Your task to perform on an android device: What's on my calendar tomorrow? Image 0: 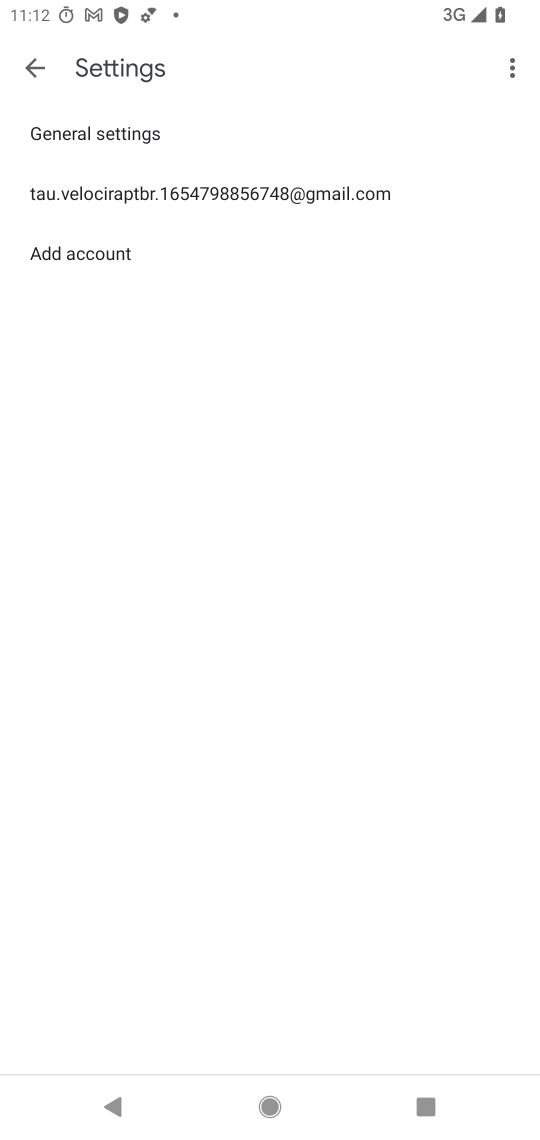
Step 0: press home button
Your task to perform on an android device: What's on my calendar tomorrow? Image 1: 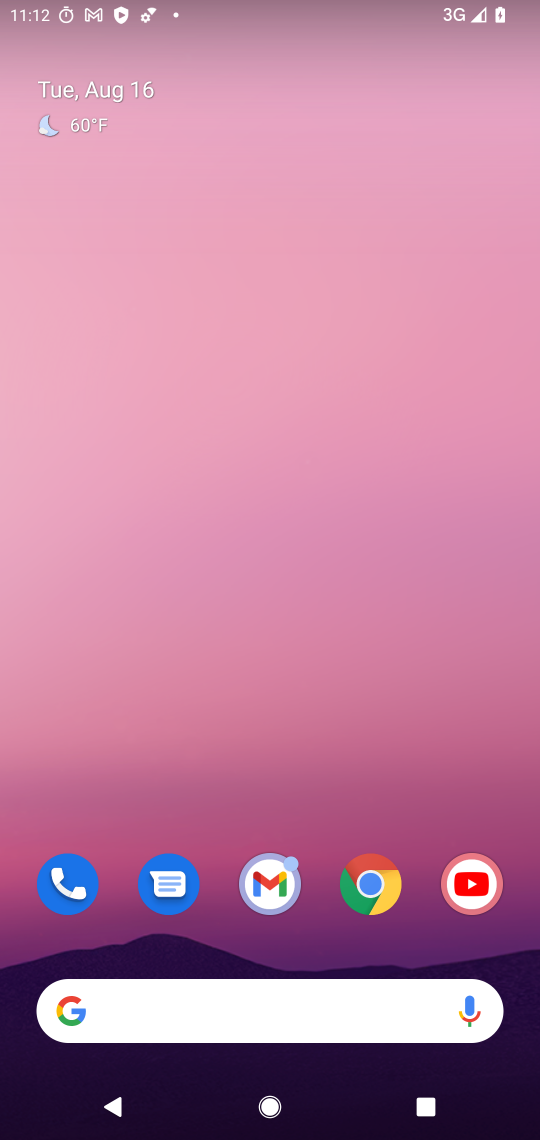
Step 1: drag from (272, 694) to (278, 352)
Your task to perform on an android device: What's on my calendar tomorrow? Image 2: 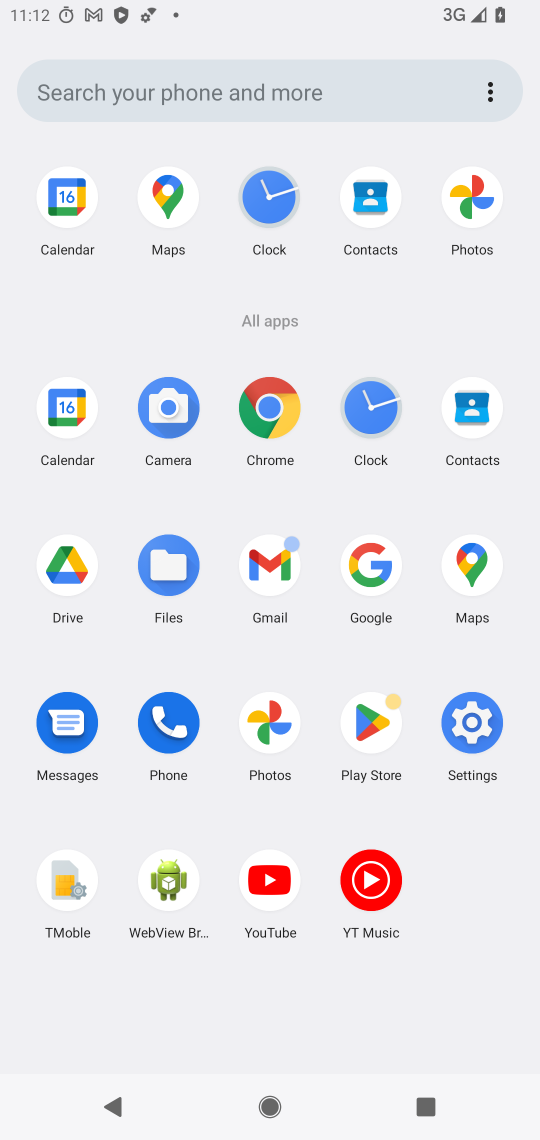
Step 2: click (67, 412)
Your task to perform on an android device: What's on my calendar tomorrow? Image 3: 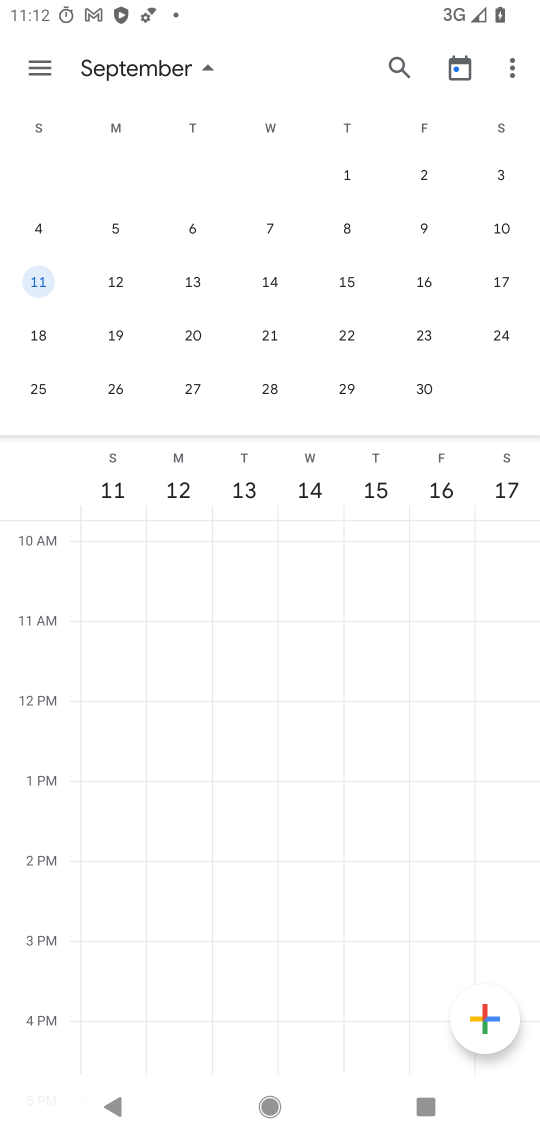
Step 3: drag from (427, 287) to (534, 278)
Your task to perform on an android device: What's on my calendar tomorrow? Image 4: 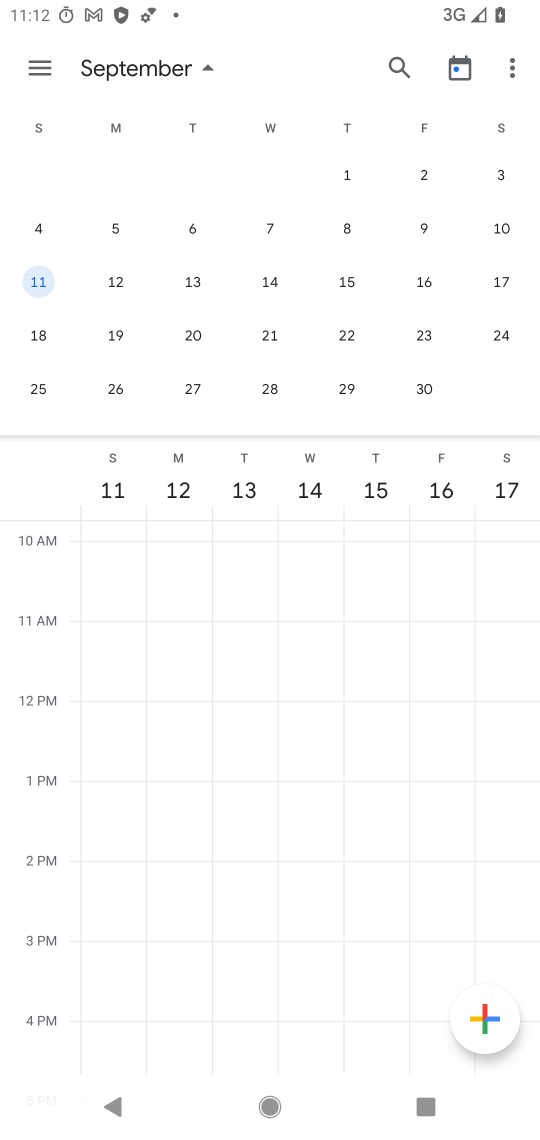
Step 4: drag from (278, 270) to (517, 257)
Your task to perform on an android device: What's on my calendar tomorrow? Image 5: 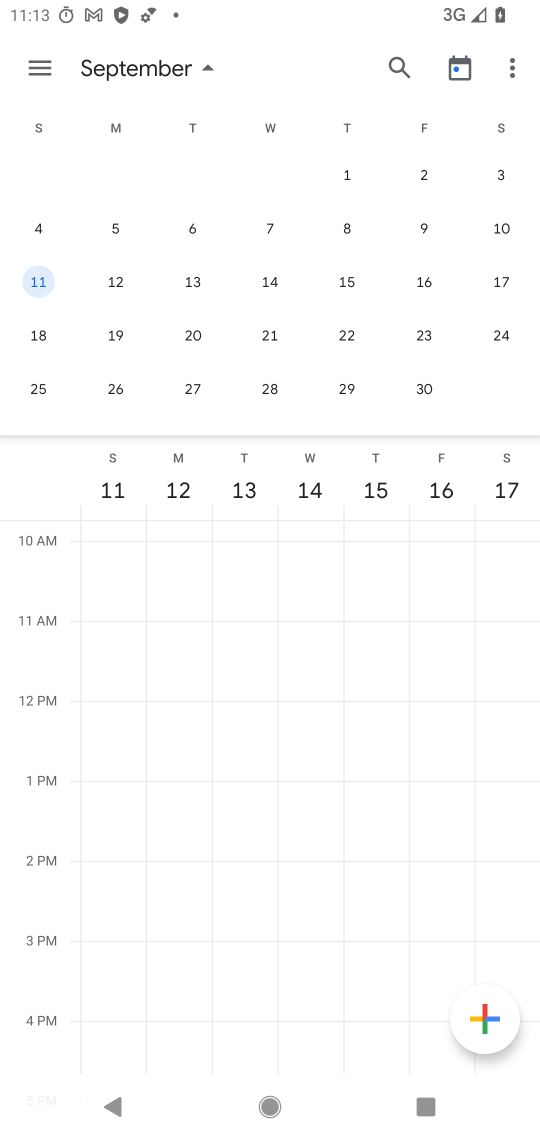
Step 5: drag from (31, 307) to (514, 303)
Your task to perform on an android device: What's on my calendar tomorrow? Image 6: 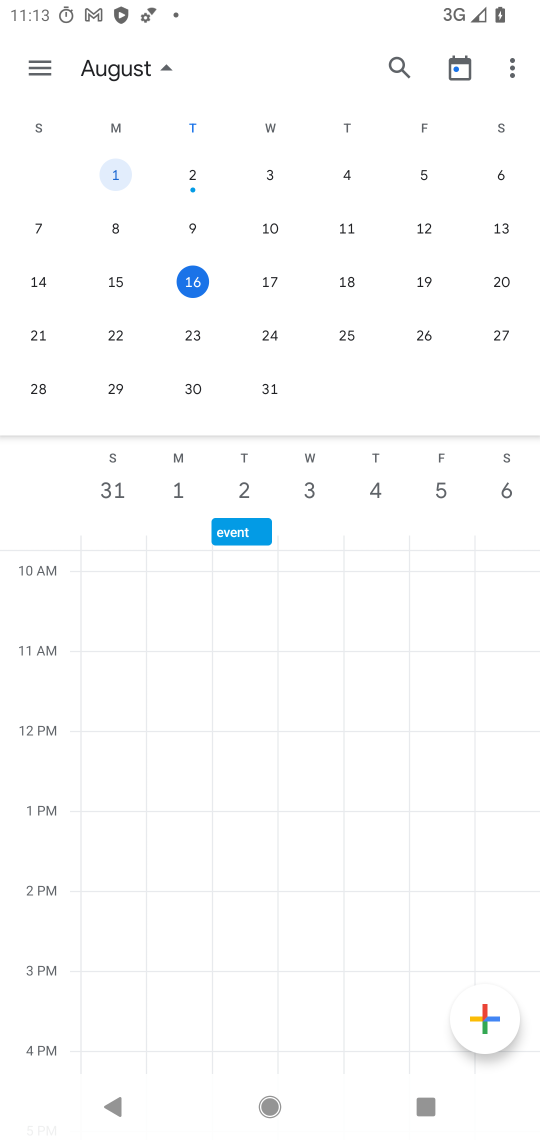
Step 6: click (270, 285)
Your task to perform on an android device: What's on my calendar tomorrow? Image 7: 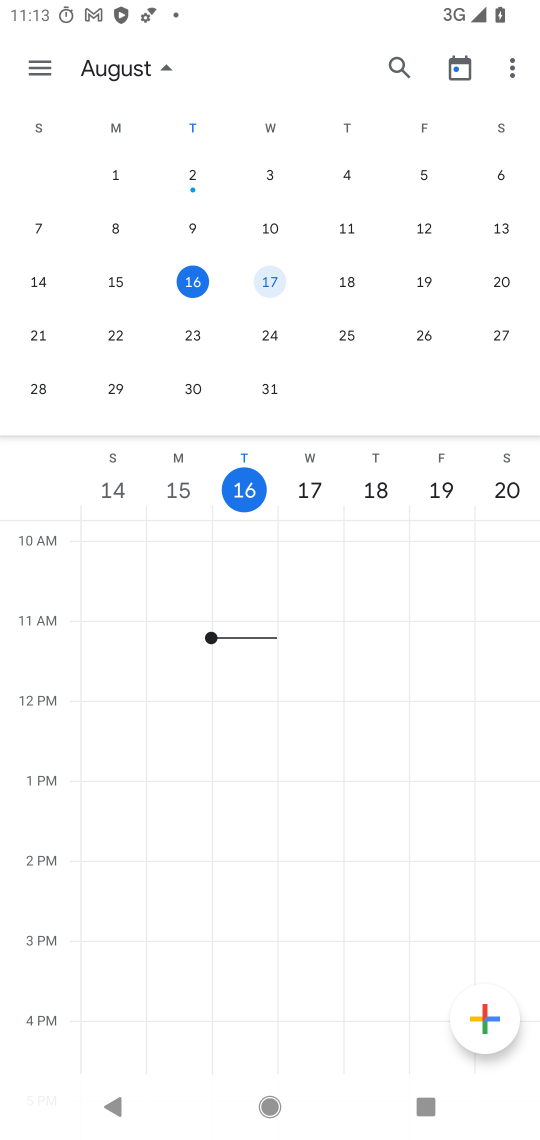
Step 7: click (270, 285)
Your task to perform on an android device: What's on my calendar tomorrow? Image 8: 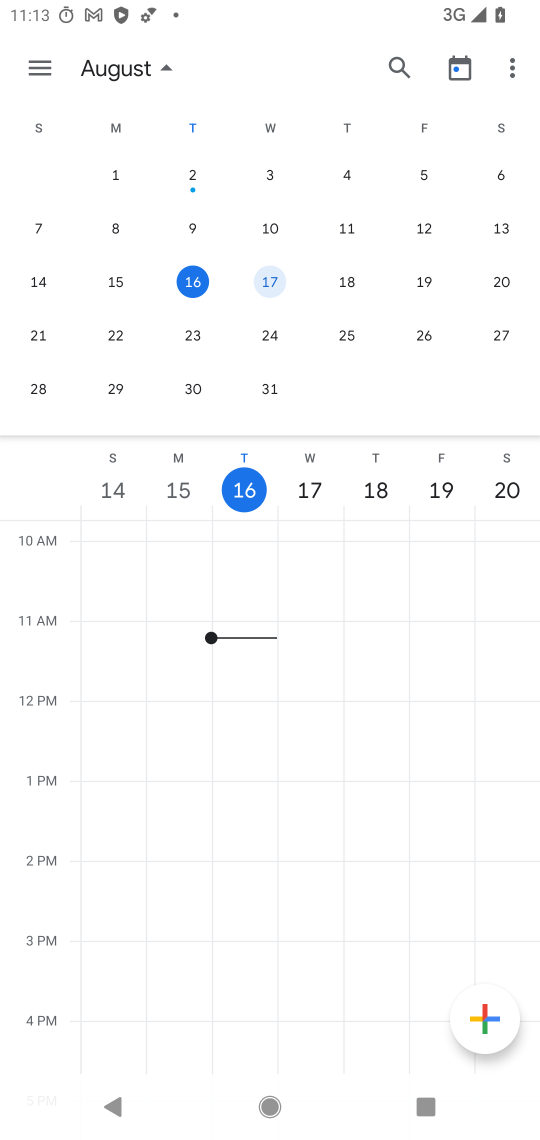
Step 8: click (270, 285)
Your task to perform on an android device: What's on my calendar tomorrow? Image 9: 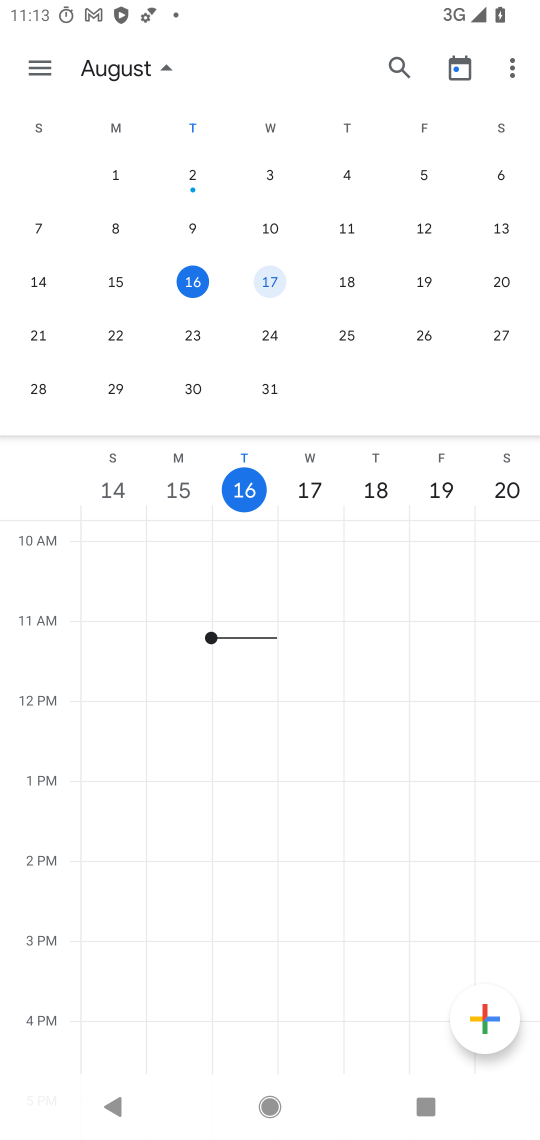
Step 9: click (270, 285)
Your task to perform on an android device: What's on my calendar tomorrow? Image 10: 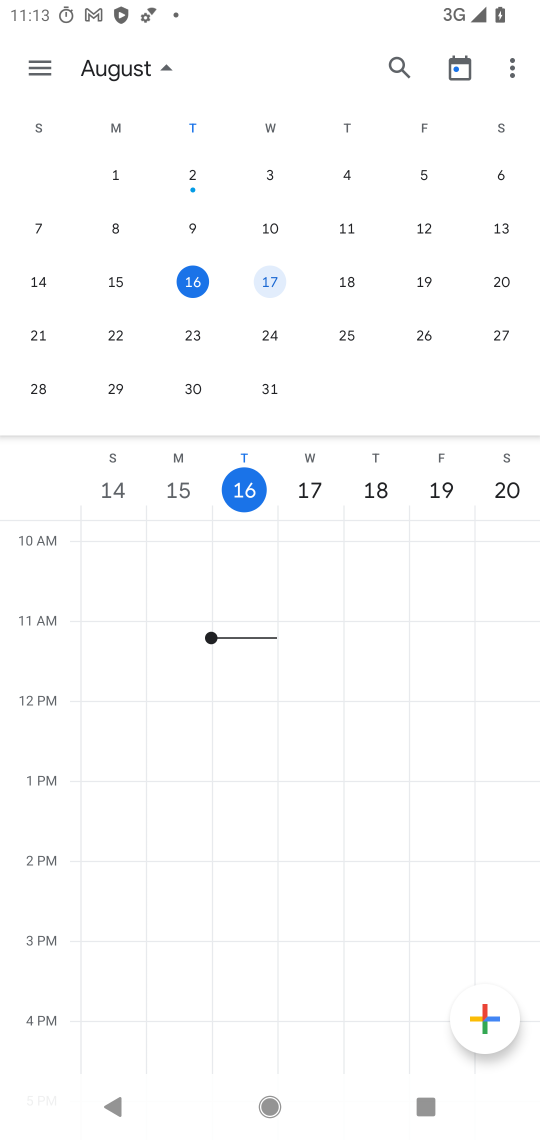
Step 10: click (266, 283)
Your task to perform on an android device: What's on my calendar tomorrow? Image 11: 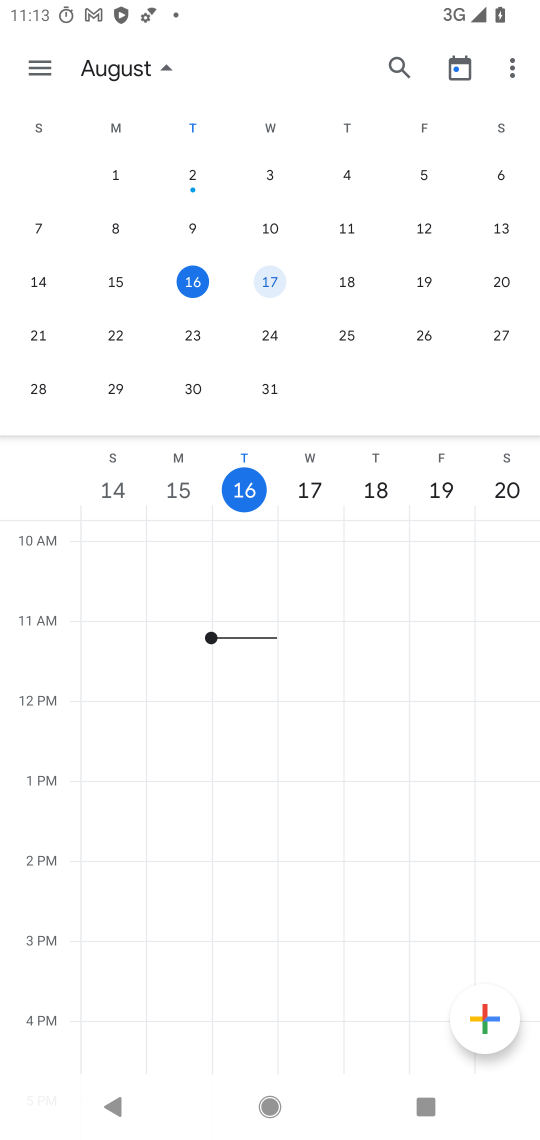
Step 11: click (266, 283)
Your task to perform on an android device: What's on my calendar tomorrow? Image 12: 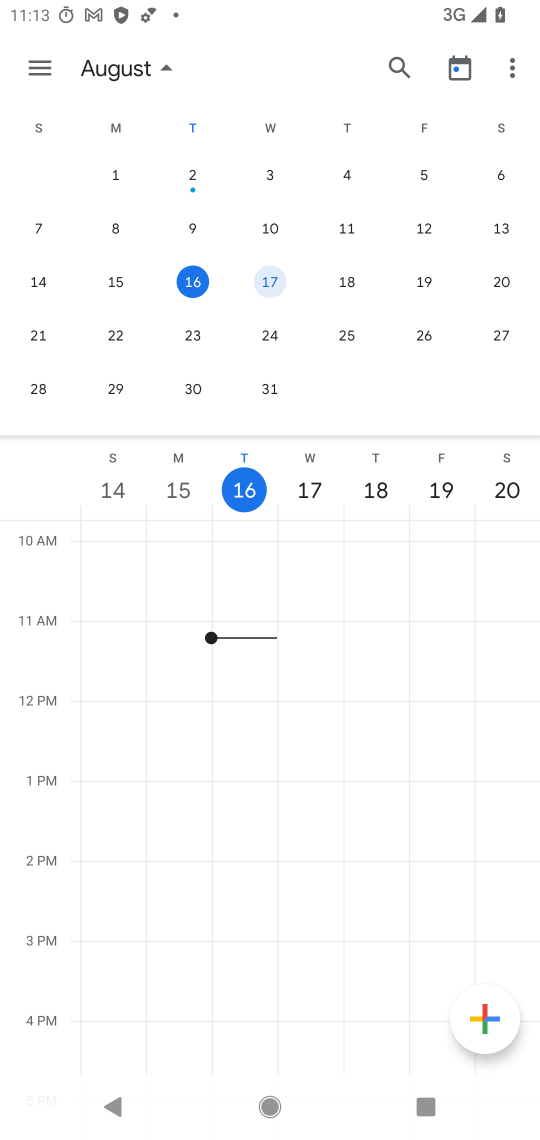
Step 12: click (30, 66)
Your task to perform on an android device: What's on my calendar tomorrow? Image 13: 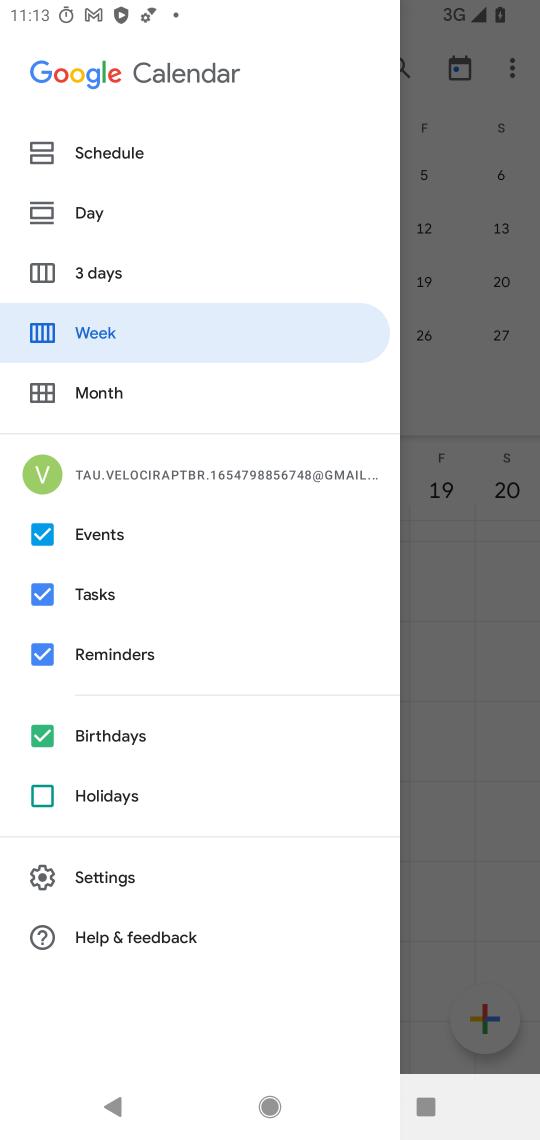
Step 13: click (75, 214)
Your task to perform on an android device: What's on my calendar tomorrow? Image 14: 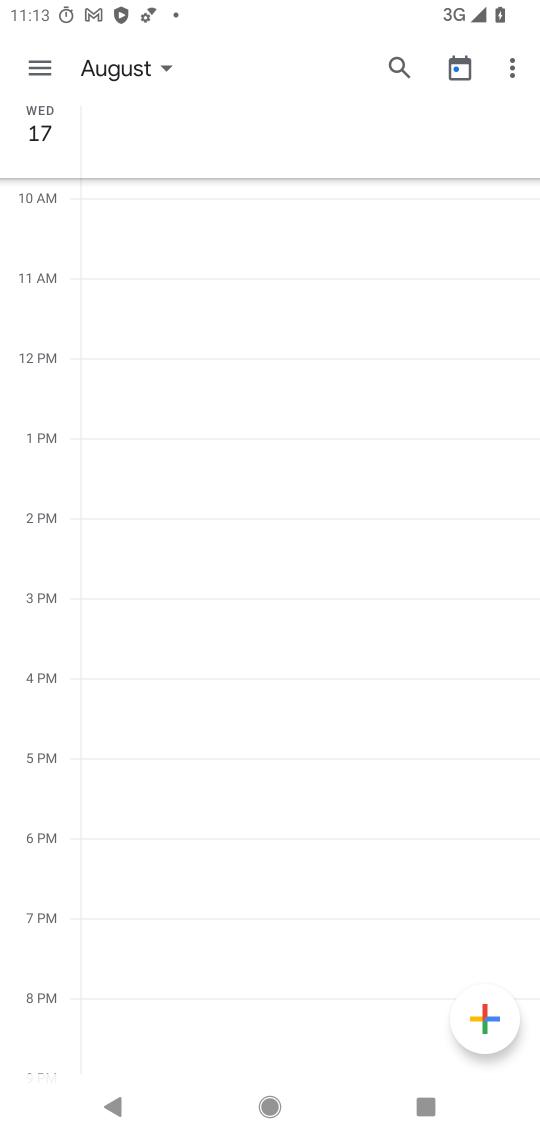
Step 14: task complete